Your task to perform on an android device: Open the calendar and show me this week's events? Image 0: 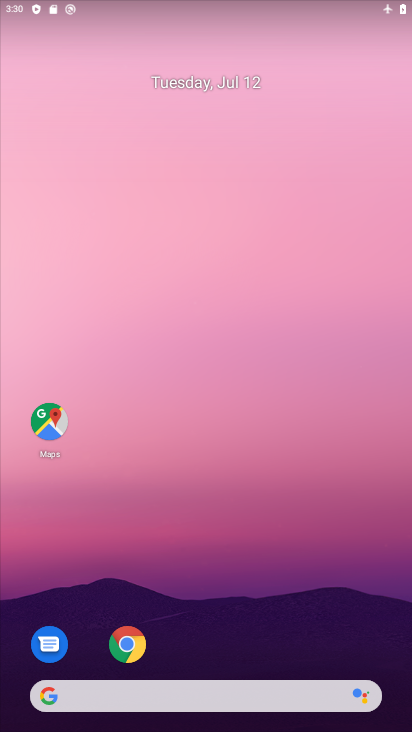
Step 0: drag from (307, 668) to (205, 221)
Your task to perform on an android device: Open the calendar and show me this week's events? Image 1: 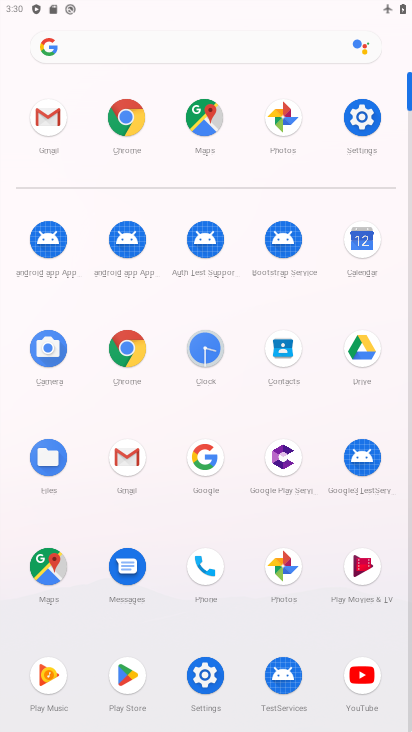
Step 1: click (365, 239)
Your task to perform on an android device: Open the calendar and show me this week's events? Image 2: 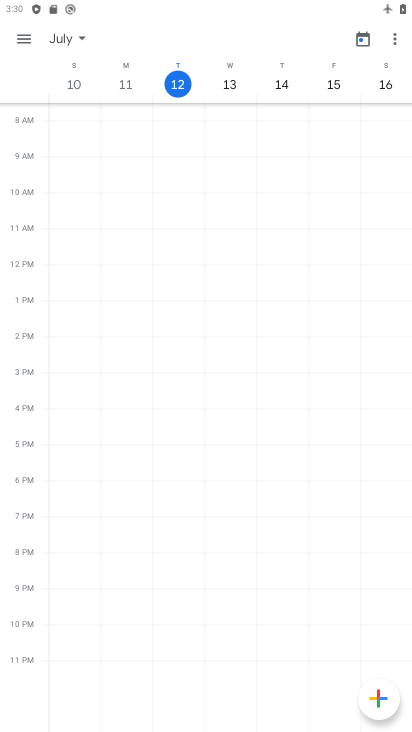
Step 2: click (384, 79)
Your task to perform on an android device: Open the calendar and show me this week's events? Image 3: 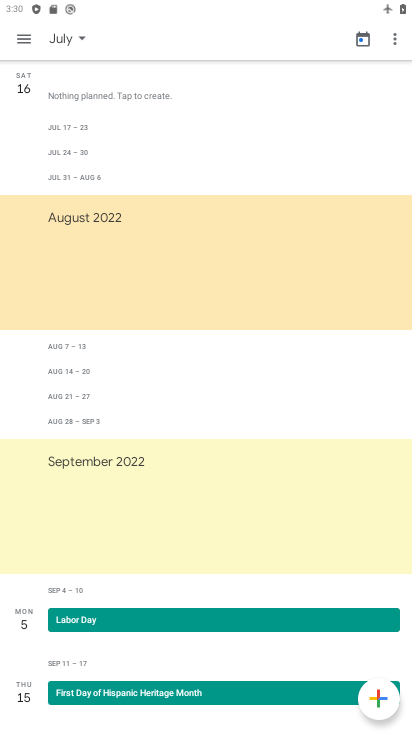
Step 3: click (30, 47)
Your task to perform on an android device: Open the calendar and show me this week's events? Image 4: 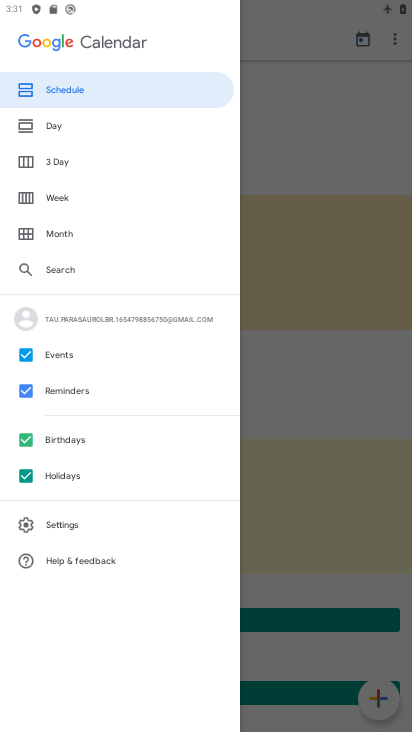
Step 4: click (36, 156)
Your task to perform on an android device: Open the calendar and show me this week's events? Image 5: 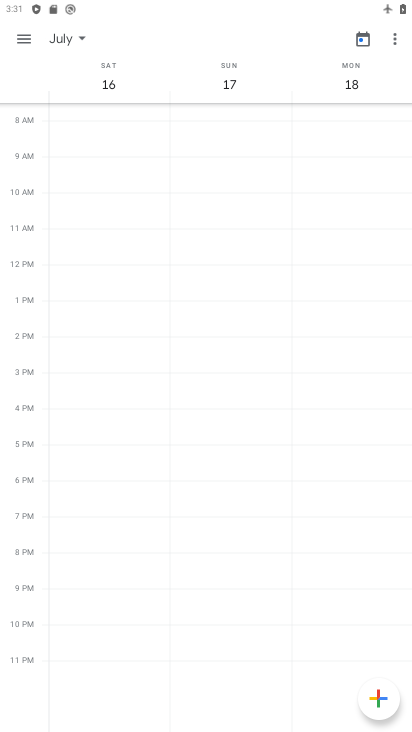
Step 5: task complete